Your task to perform on an android device: Search for seafood restaurants on Google Maps Image 0: 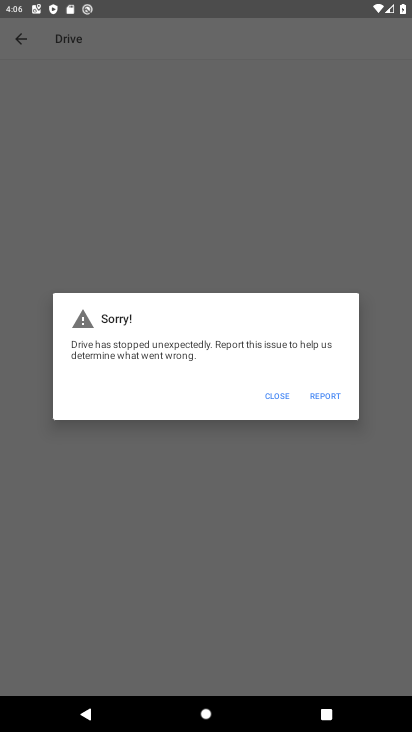
Step 0: press home button
Your task to perform on an android device: Search for seafood restaurants on Google Maps Image 1: 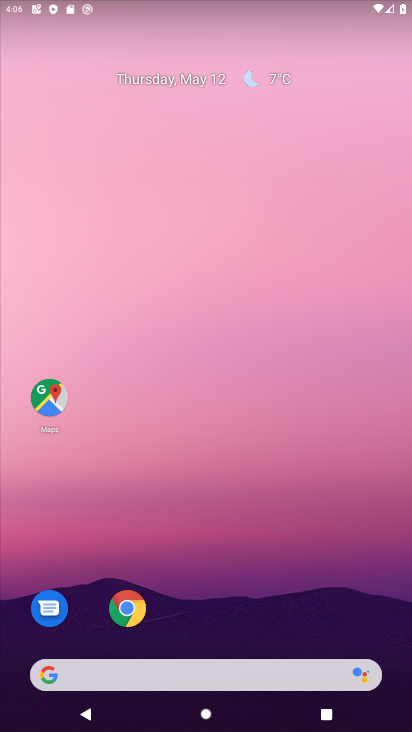
Step 1: click (44, 403)
Your task to perform on an android device: Search for seafood restaurants on Google Maps Image 2: 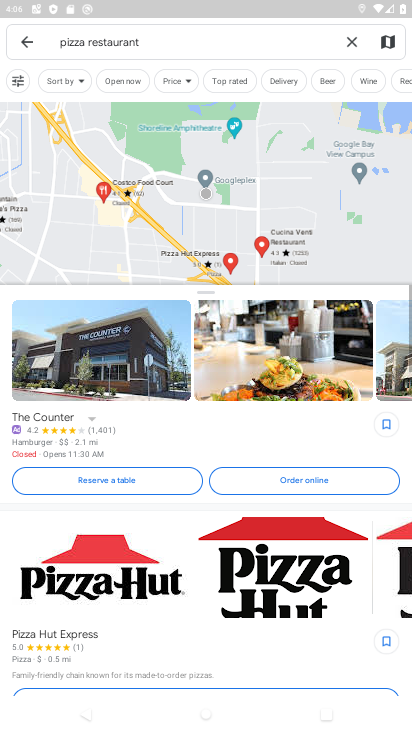
Step 2: click (351, 42)
Your task to perform on an android device: Search for seafood restaurants on Google Maps Image 3: 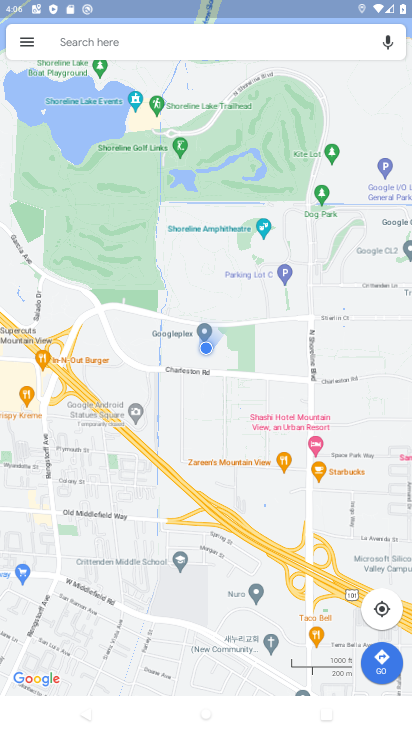
Step 3: click (217, 35)
Your task to perform on an android device: Search for seafood restaurants on Google Maps Image 4: 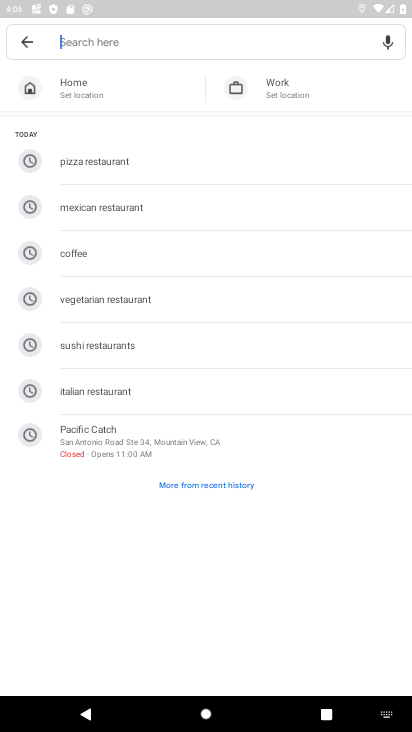
Step 4: type "seafood restaurant"
Your task to perform on an android device: Search for seafood restaurants on Google Maps Image 5: 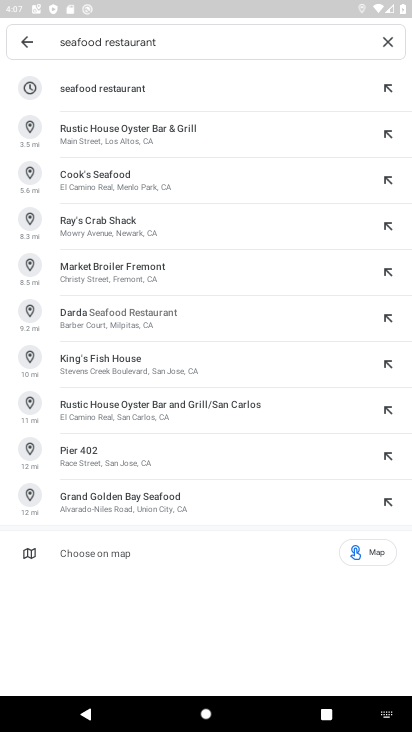
Step 5: click (244, 82)
Your task to perform on an android device: Search for seafood restaurants on Google Maps Image 6: 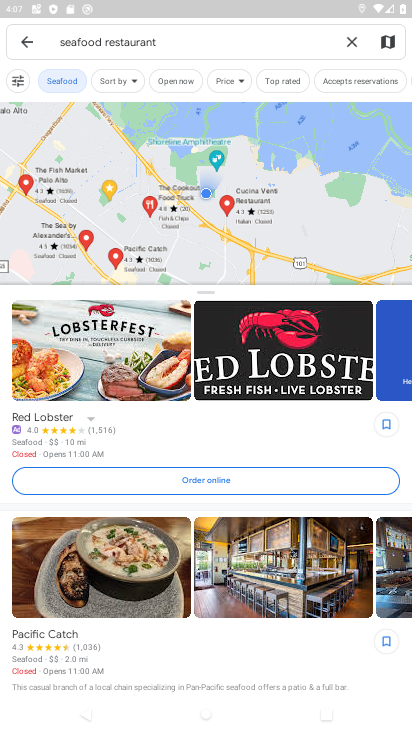
Step 6: task complete